Your task to perform on an android device: Search for Mexican restaurants on Maps Image 0: 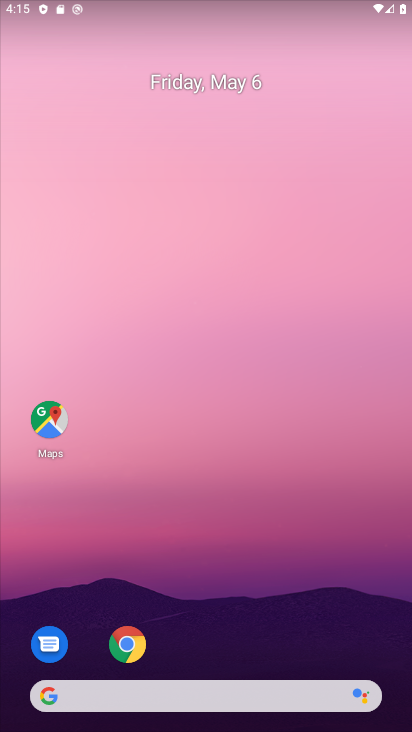
Step 0: drag from (145, 353) to (76, 136)
Your task to perform on an android device: Search for Mexican restaurants on Maps Image 1: 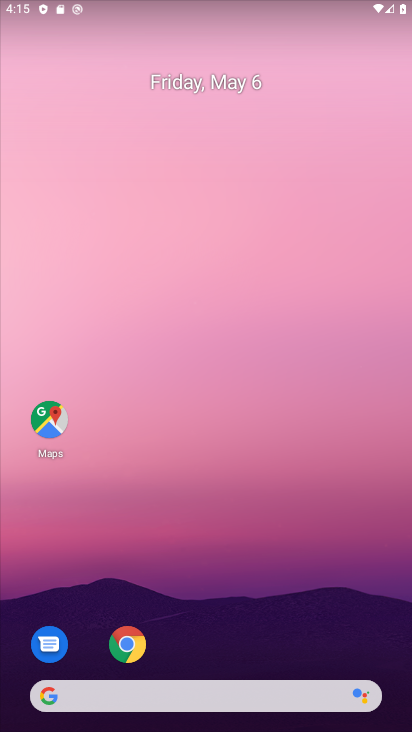
Step 1: drag from (283, 664) to (117, 84)
Your task to perform on an android device: Search for Mexican restaurants on Maps Image 2: 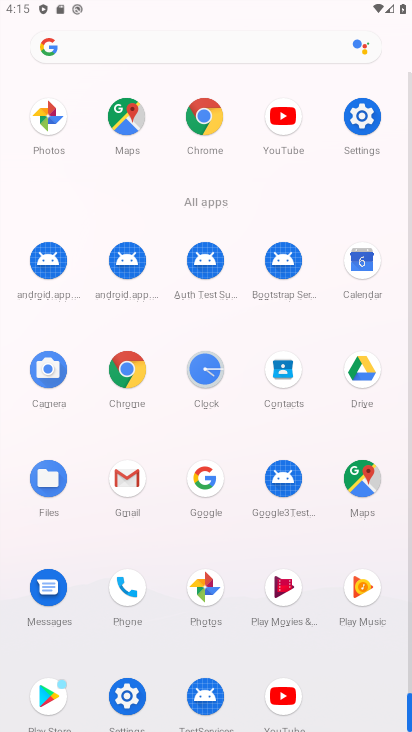
Step 2: click (122, 112)
Your task to perform on an android device: Search for Mexican restaurants on Maps Image 3: 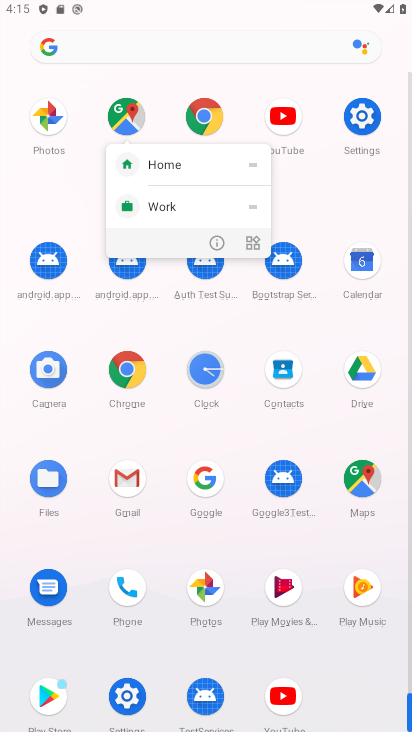
Step 3: click (122, 112)
Your task to perform on an android device: Search for Mexican restaurants on Maps Image 4: 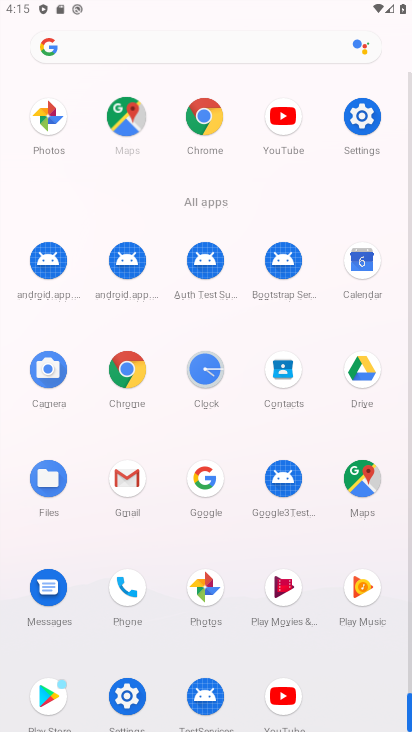
Step 4: click (123, 112)
Your task to perform on an android device: Search for Mexican restaurants on Maps Image 5: 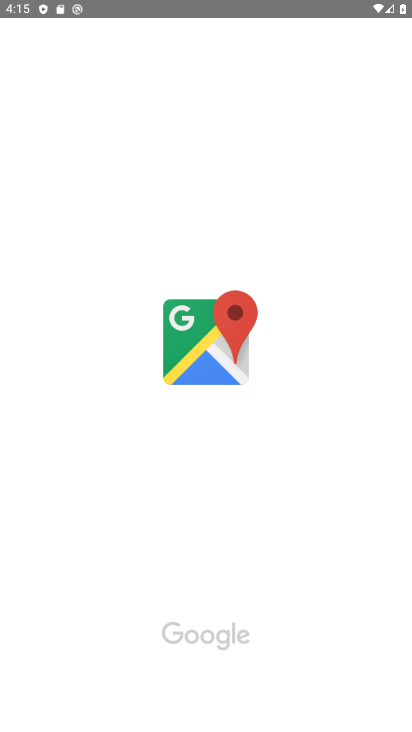
Step 5: click (209, 350)
Your task to perform on an android device: Search for Mexican restaurants on Maps Image 6: 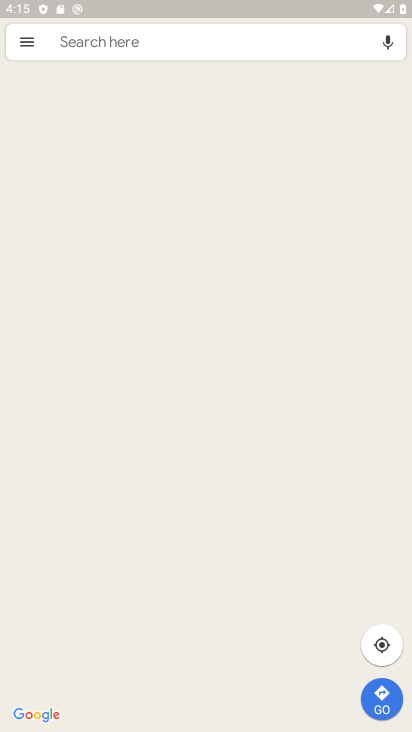
Step 6: click (209, 350)
Your task to perform on an android device: Search for Mexican restaurants on Maps Image 7: 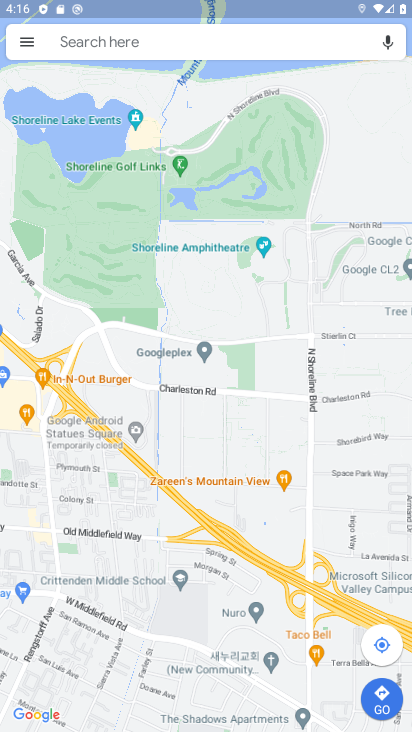
Step 7: click (68, 43)
Your task to perform on an android device: Search for Mexican restaurants on Maps Image 8: 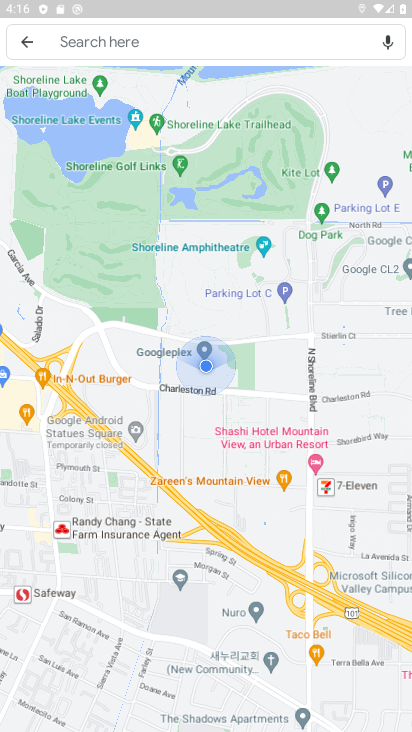
Step 8: click (67, 41)
Your task to perform on an android device: Search for Mexican restaurants on Maps Image 9: 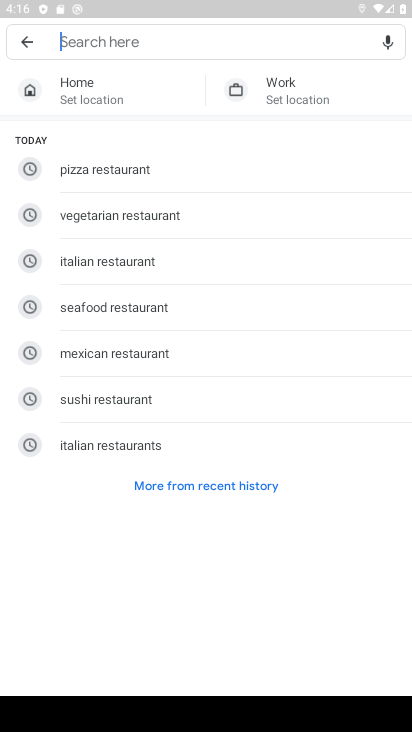
Step 9: click (145, 345)
Your task to perform on an android device: Search for Mexican restaurants on Maps Image 10: 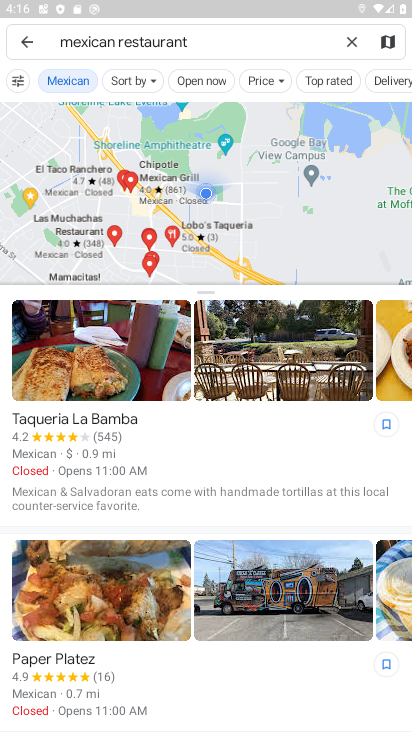
Step 10: task complete